Your task to perform on an android device: change text size in settings app Image 0: 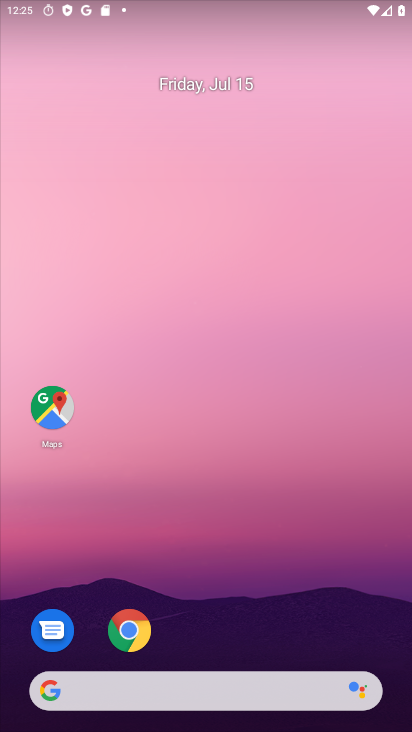
Step 0: drag from (181, 665) to (211, 80)
Your task to perform on an android device: change text size in settings app Image 1: 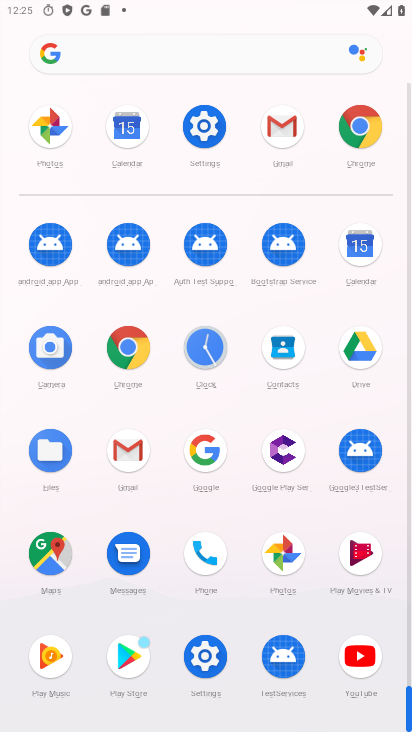
Step 1: click (202, 668)
Your task to perform on an android device: change text size in settings app Image 2: 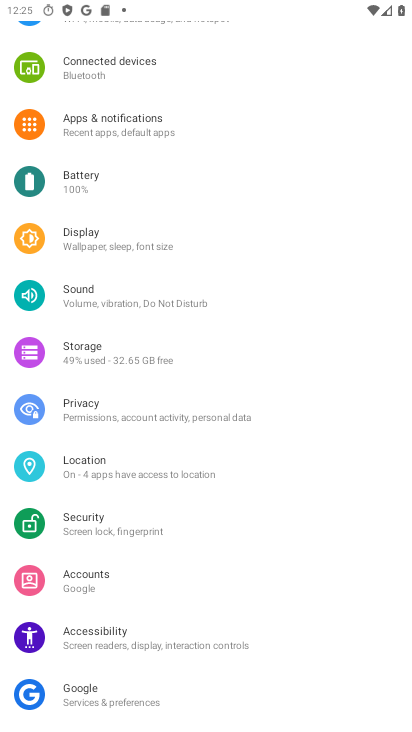
Step 2: click (86, 248)
Your task to perform on an android device: change text size in settings app Image 3: 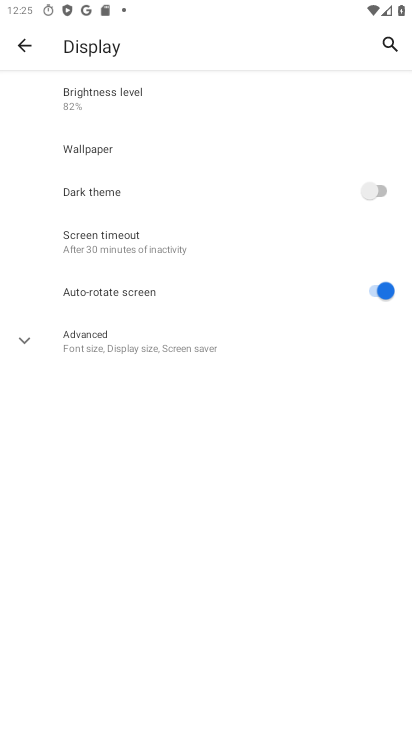
Step 3: drag from (224, 400) to (211, 300)
Your task to perform on an android device: change text size in settings app Image 4: 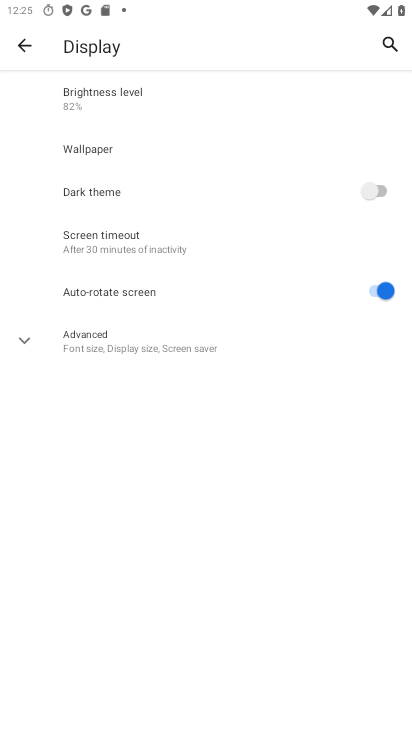
Step 4: click (121, 233)
Your task to perform on an android device: change text size in settings app Image 5: 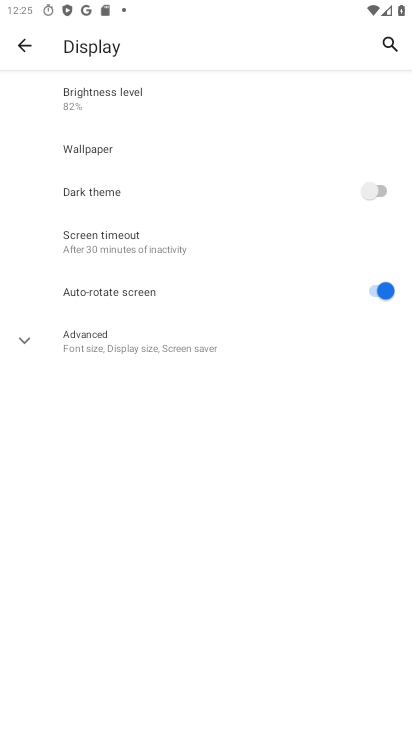
Step 5: drag from (121, 233) to (270, 0)
Your task to perform on an android device: change text size in settings app Image 6: 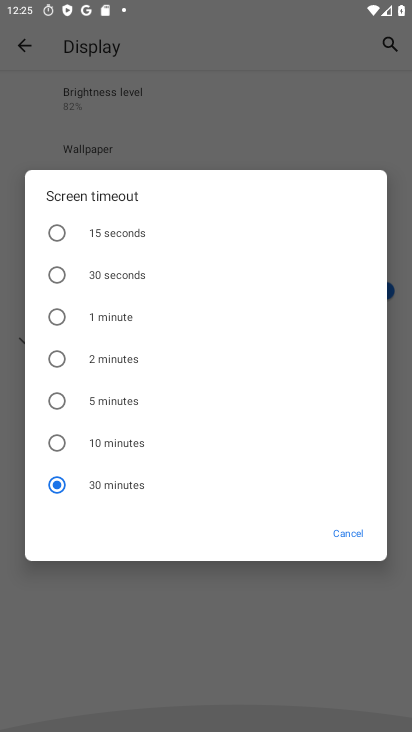
Step 6: click (323, 534)
Your task to perform on an android device: change text size in settings app Image 7: 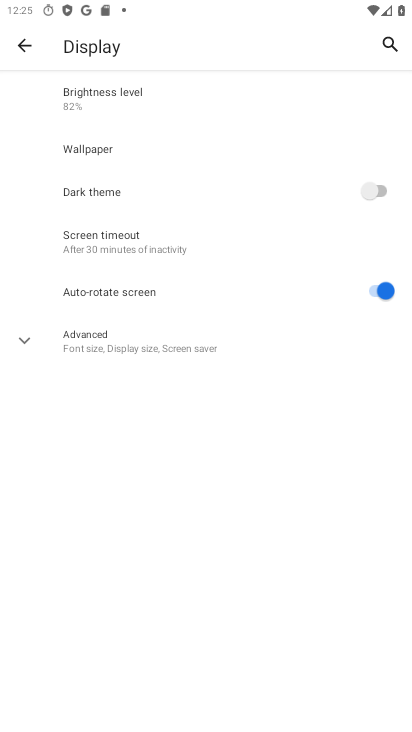
Step 7: click (70, 341)
Your task to perform on an android device: change text size in settings app Image 8: 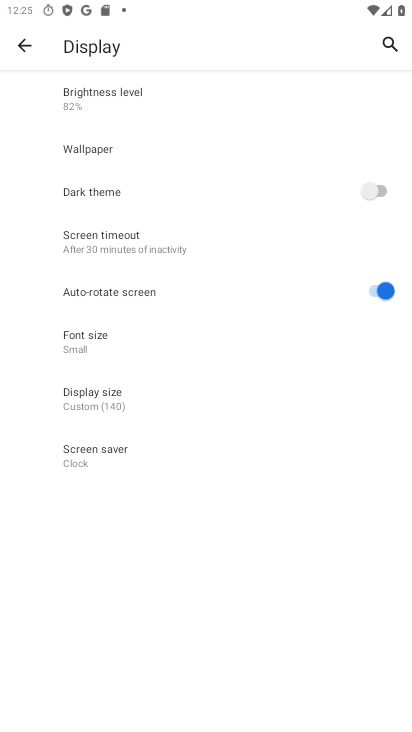
Step 8: click (94, 332)
Your task to perform on an android device: change text size in settings app Image 9: 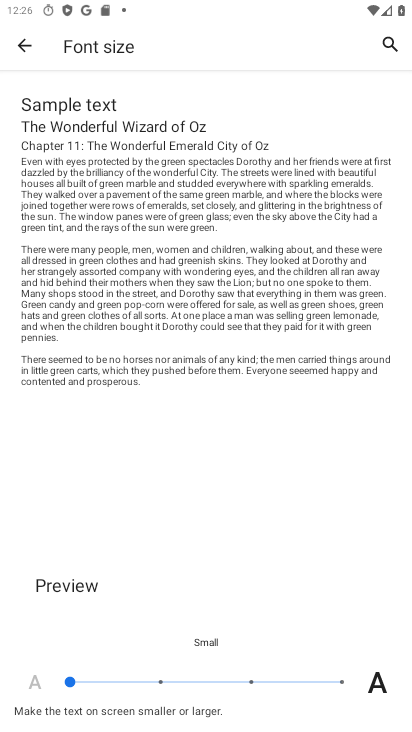
Step 9: click (316, 681)
Your task to perform on an android device: change text size in settings app Image 10: 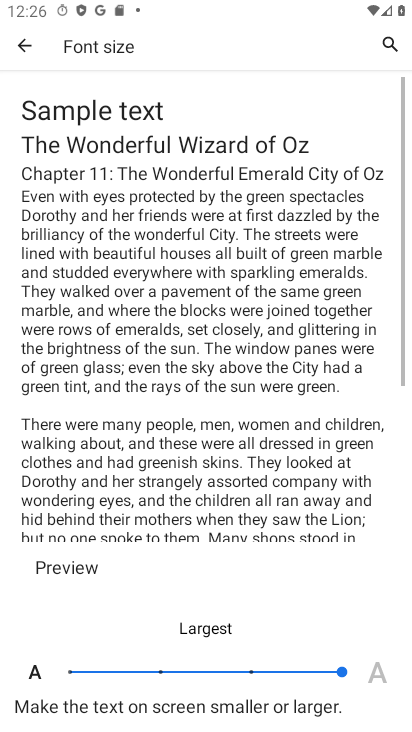
Step 10: task complete